Your task to perform on an android device: check android version Image 0: 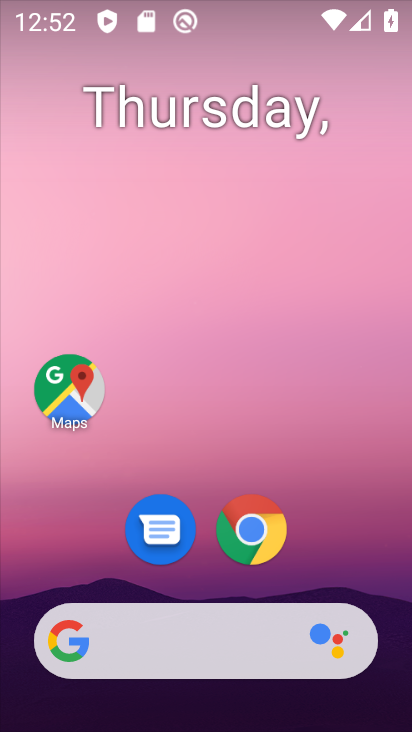
Step 0: drag from (231, 721) to (230, 202)
Your task to perform on an android device: check android version Image 1: 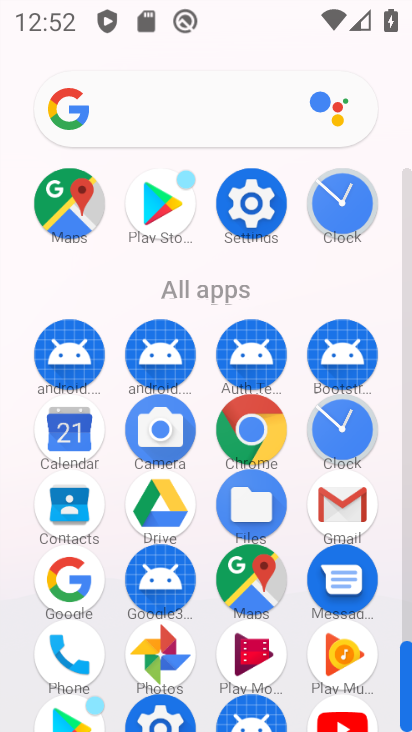
Step 1: click (254, 202)
Your task to perform on an android device: check android version Image 2: 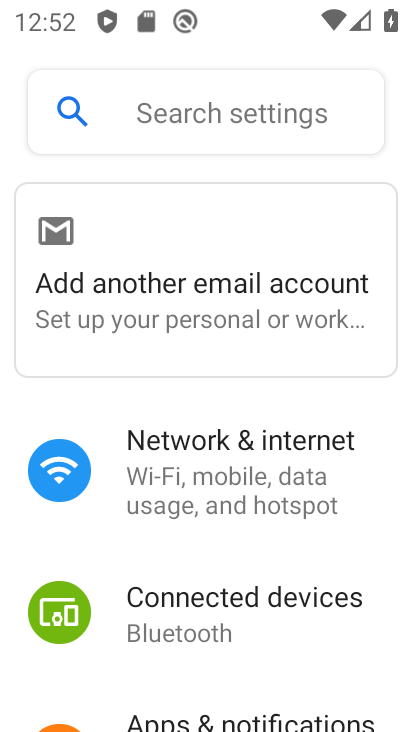
Step 2: drag from (236, 665) to (232, 204)
Your task to perform on an android device: check android version Image 3: 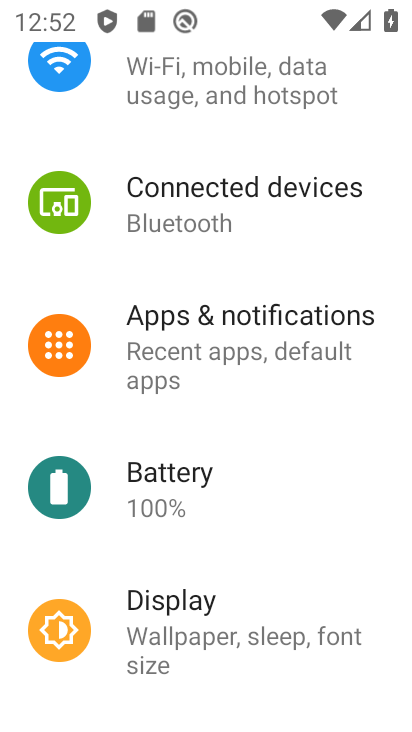
Step 3: drag from (208, 673) to (275, 230)
Your task to perform on an android device: check android version Image 4: 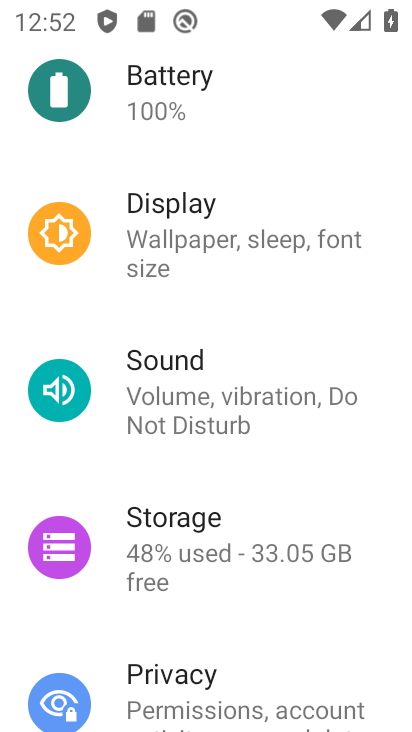
Step 4: drag from (201, 648) to (234, 177)
Your task to perform on an android device: check android version Image 5: 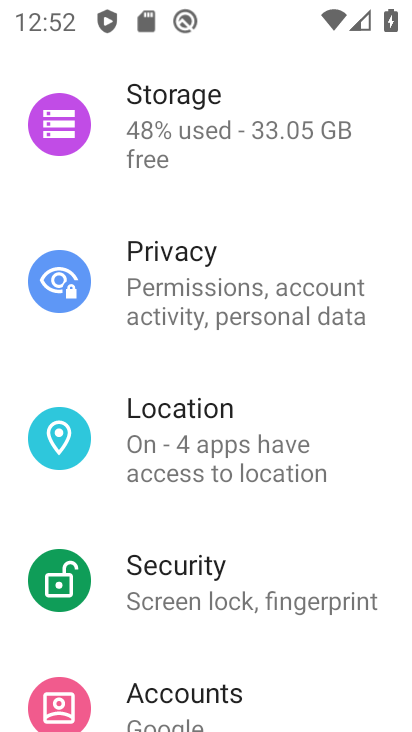
Step 5: drag from (189, 668) to (236, 277)
Your task to perform on an android device: check android version Image 6: 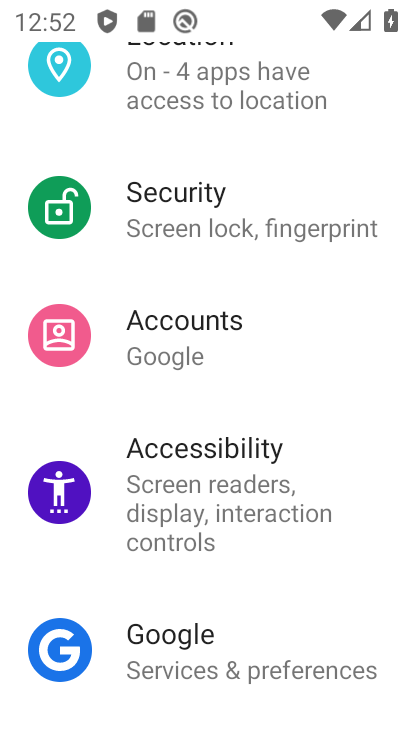
Step 6: drag from (195, 659) to (219, 208)
Your task to perform on an android device: check android version Image 7: 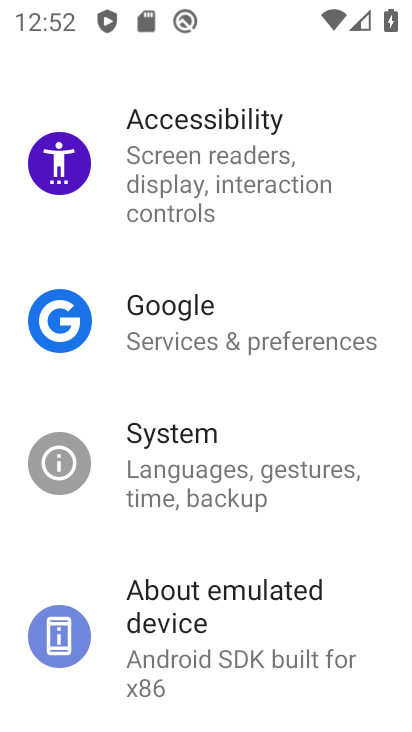
Step 7: click (178, 617)
Your task to perform on an android device: check android version Image 8: 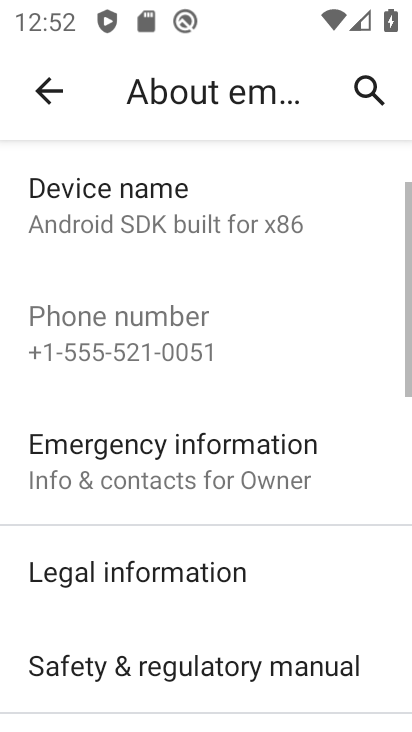
Step 8: drag from (178, 616) to (193, 176)
Your task to perform on an android device: check android version Image 9: 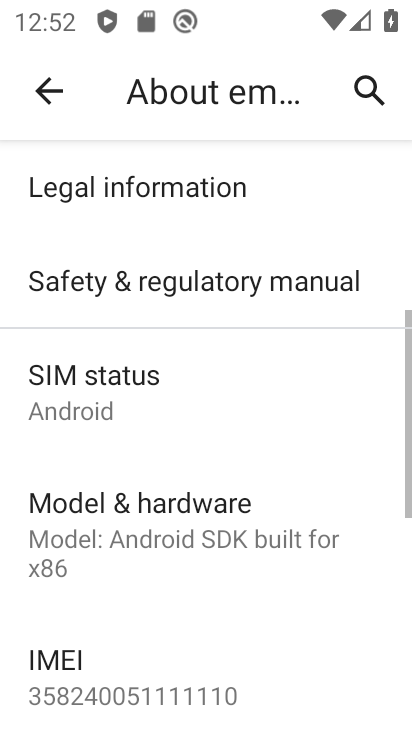
Step 9: drag from (166, 649) to (186, 140)
Your task to perform on an android device: check android version Image 10: 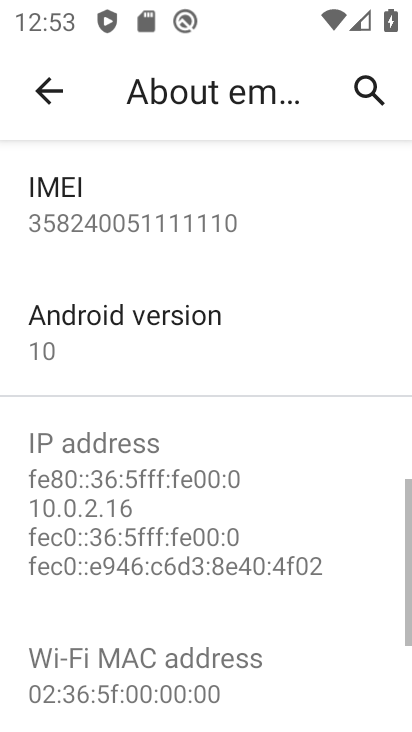
Step 10: click (83, 328)
Your task to perform on an android device: check android version Image 11: 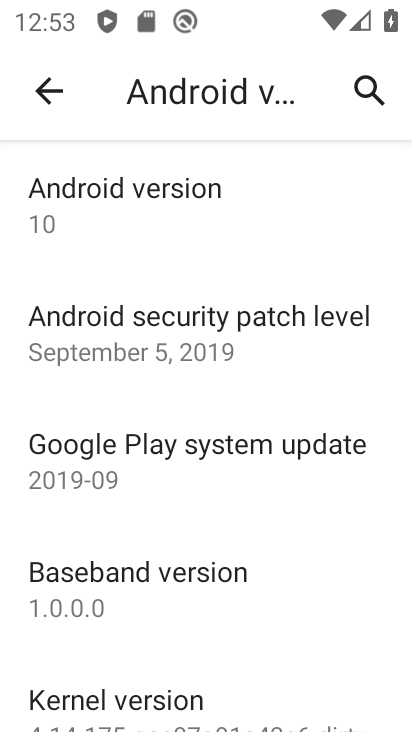
Step 11: click (99, 202)
Your task to perform on an android device: check android version Image 12: 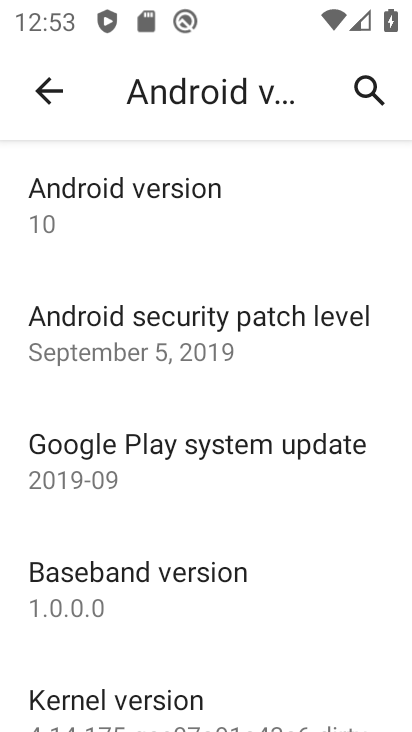
Step 12: task complete